Your task to perform on an android device: Open maps Image 0: 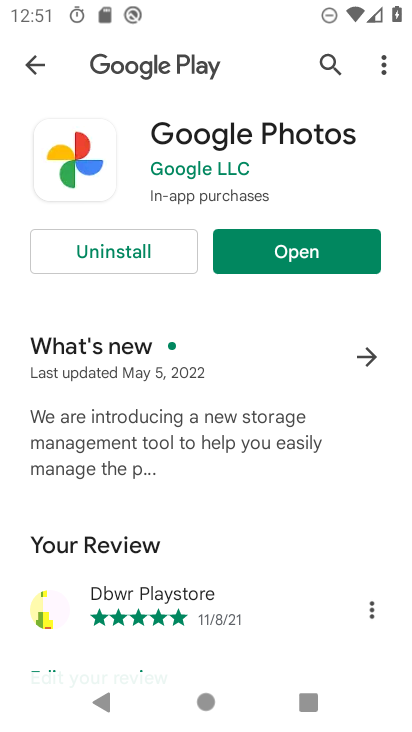
Step 0: press home button
Your task to perform on an android device: Open maps Image 1: 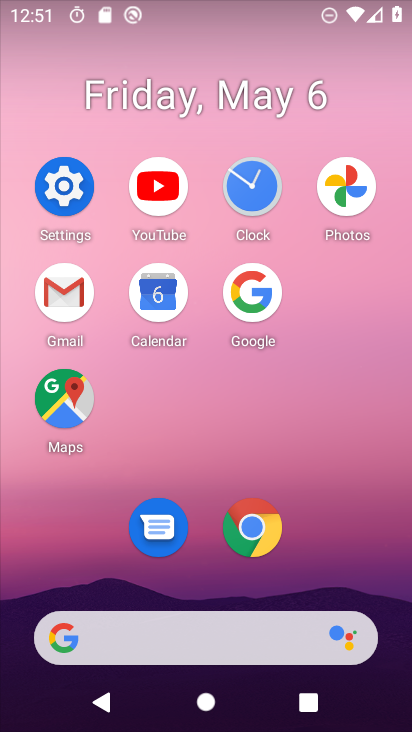
Step 1: click (73, 413)
Your task to perform on an android device: Open maps Image 2: 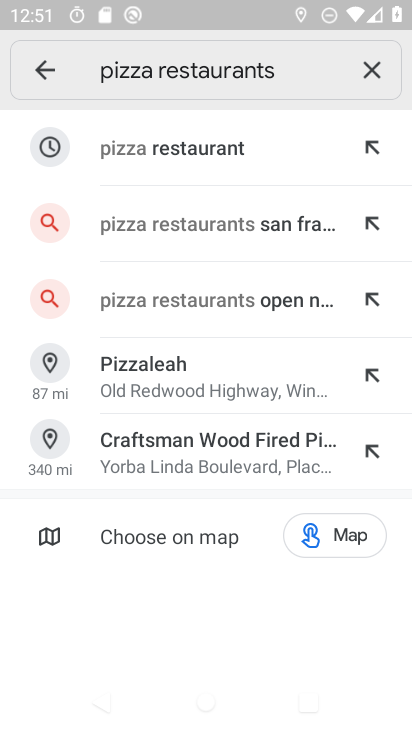
Step 2: task complete